Your task to perform on an android device: Go to battery settings Image 0: 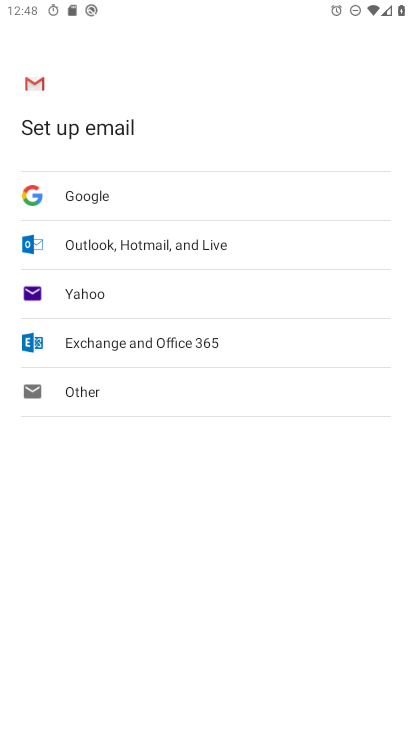
Step 0: press home button
Your task to perform on an android device: Go to battery settings Image 1: 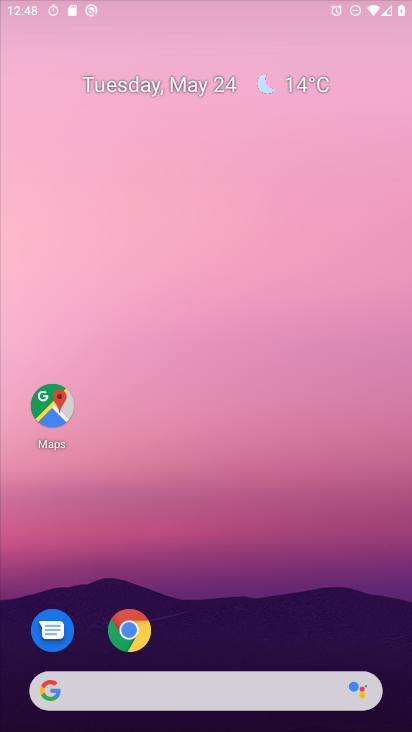
Step 1: drag from (400, 634) to (294, 142)
Your task to perform on an android device: Go to battery settings Image 2: 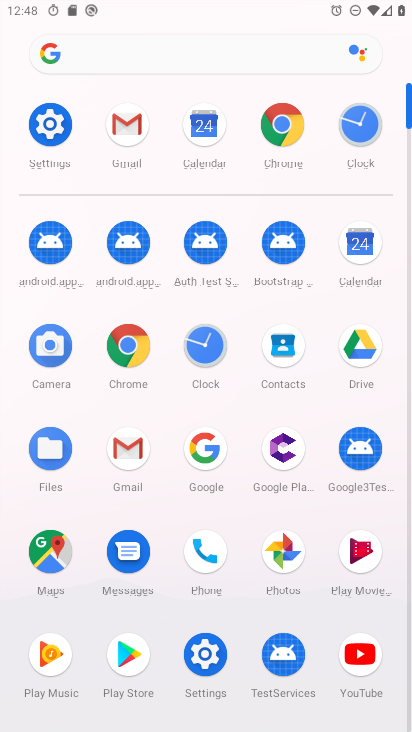
Step 2: click (47, 133)
Your task to perform on an android device: Go to battery settings Image 3: 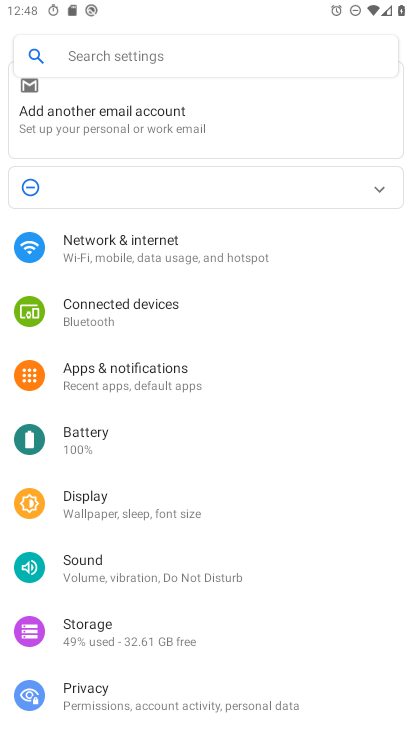
Step 3: click (125, 438)
Your task to perform on an android device: Go to battery settings Image 4: 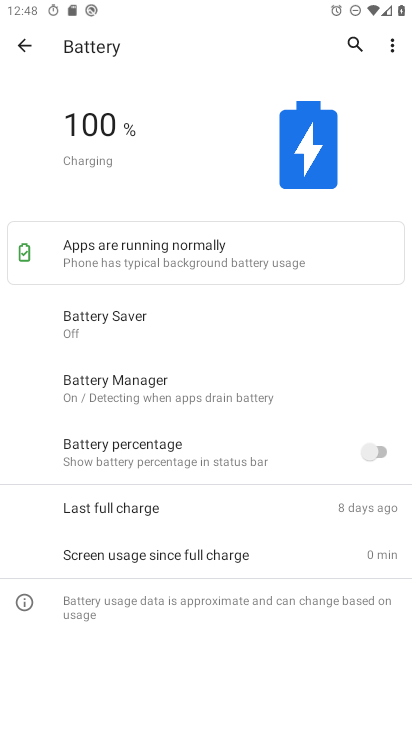
Step 4: task complete